Your task to perform on an android device: Open sound settings Image 0: 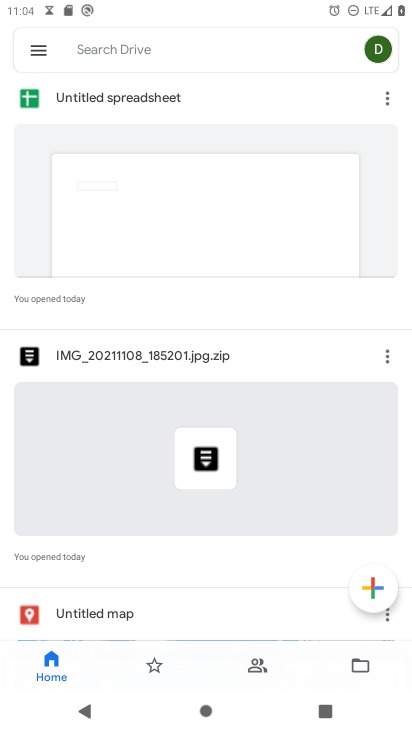
Step 0: press home button
Your task to perform on an android device: Open sound settings Image 1: 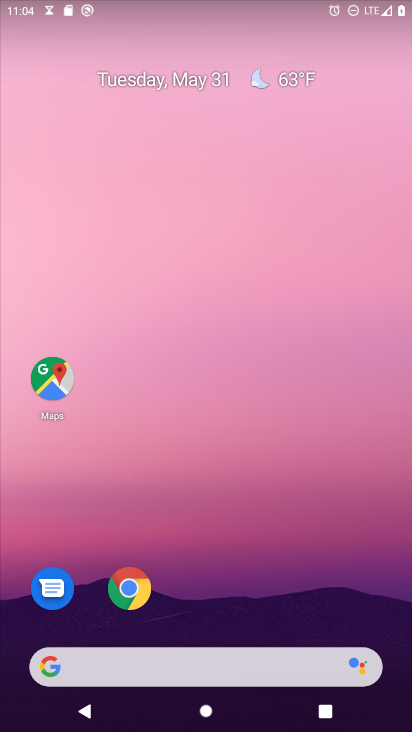
Step 1: drag from (269, 575) to (228, 165)
Your task to perform on an android device: Open sound settings Image 2: 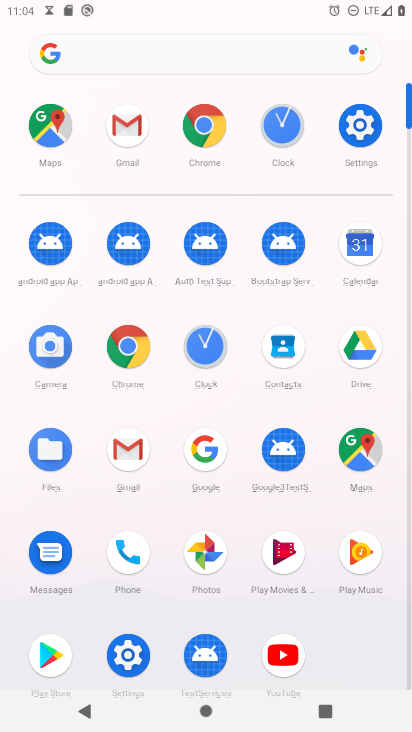
Step 2: click (361, 125)
Your task to perform on an android device: Open sound settings Image 3: 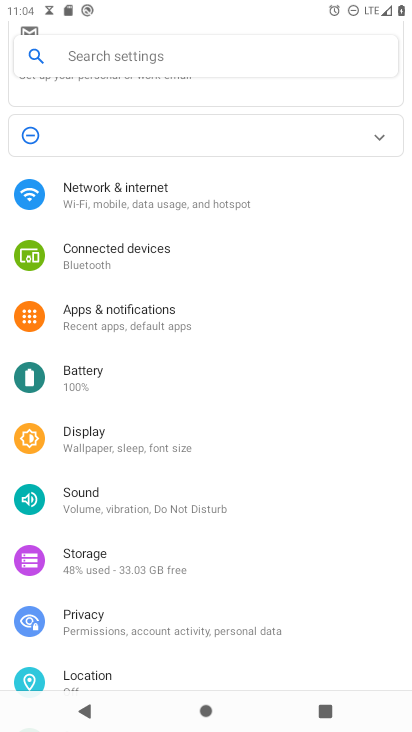
Step 3: drag from (116, 425) to (111, 329)
Your task to perform on an android device: Open sound settings Image 4: 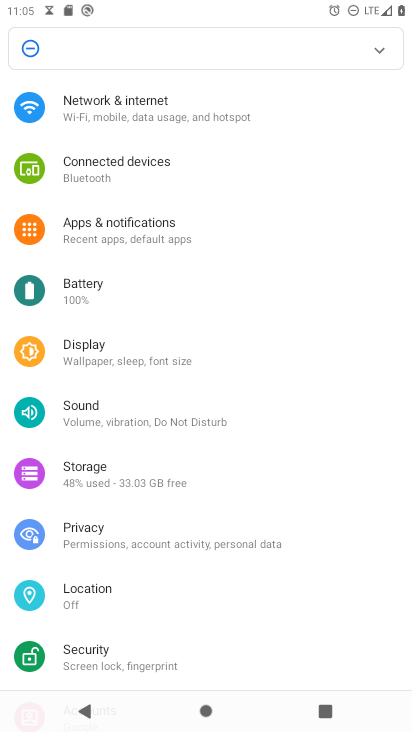
Step 4: click (138, 411)
Your task to perform on an android device: Open sound settings Image 5: 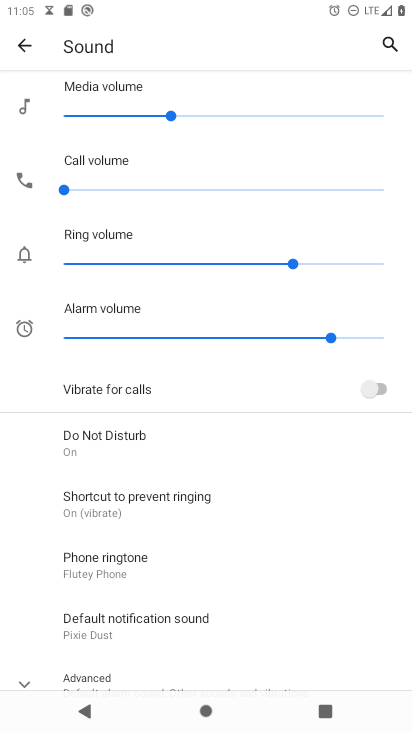
Step 5: task complete